Your task to perform on an android device: add a contact in the contacts app Image 0: 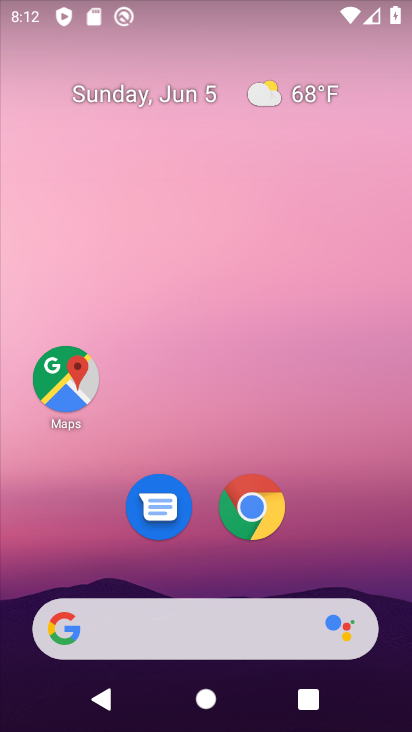
Step 0: drag from (259, 703) to (274, 120)
Your task to perform on an android device: add a contact in the contacts app Image 1: 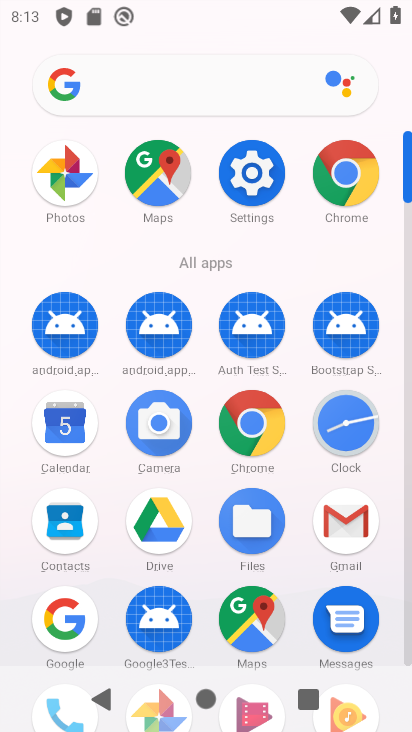
Step 1: click (69, 521)
Your task to perform on an android device: add a contact in the contacts app Image 2: 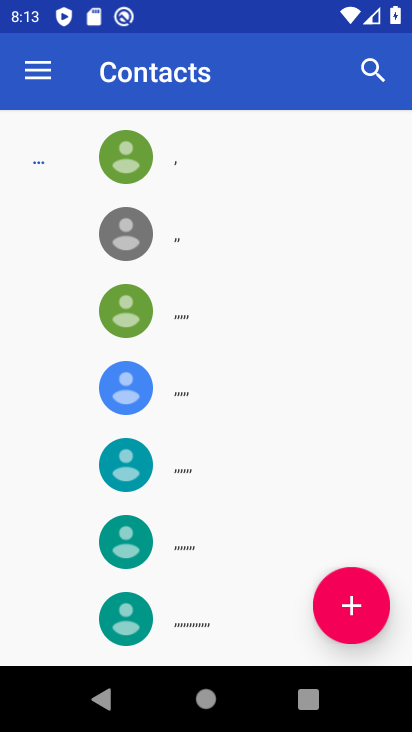
Step 2: click (355, 606)
Your task to perform on an android device: add a contact in the contacts app Image 3: 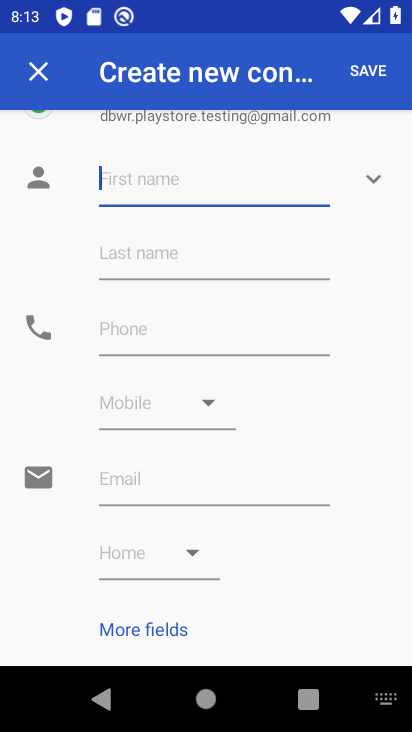
Step 3: type "nnnnnnn"
Your task to perform on an android device: add a contact in the contacts app Image 4: 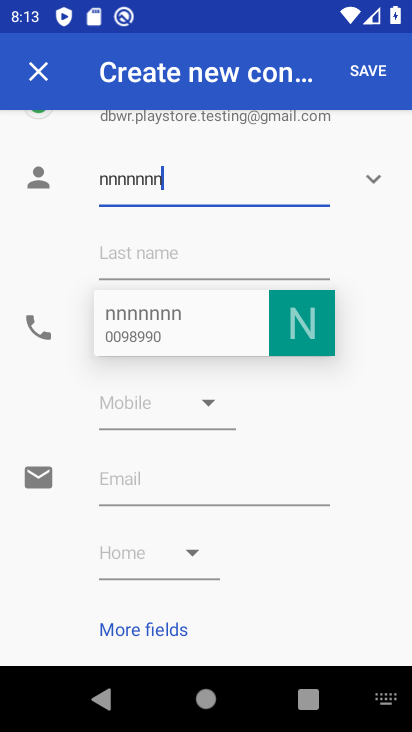
Step 4: click (142, 330)
Your task to perform on an android device: add a contact in the contacts app Image 5: 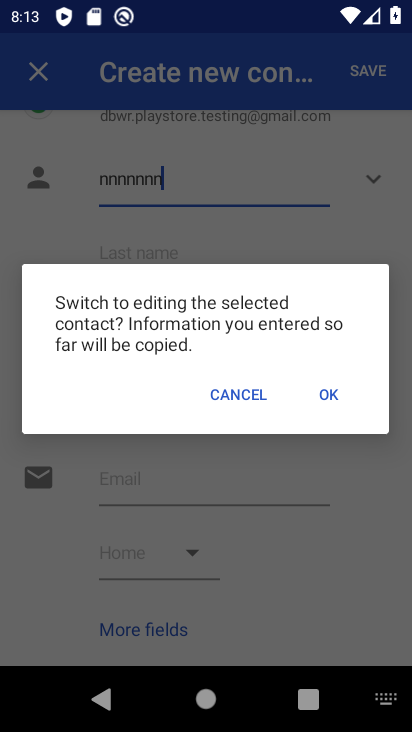
Step 5: click (234, 394)
Your task to perform on an android device: add a contact in the contacts app Image 6: 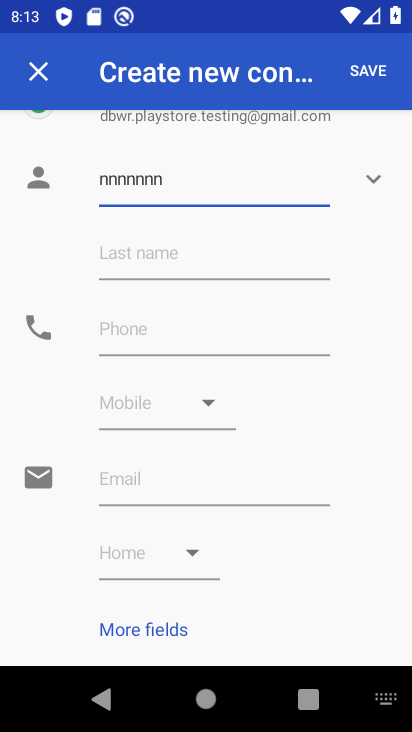
Step 6: type "sss"
Your task to perform on an android device: add a contact in the contacts app Image 7: 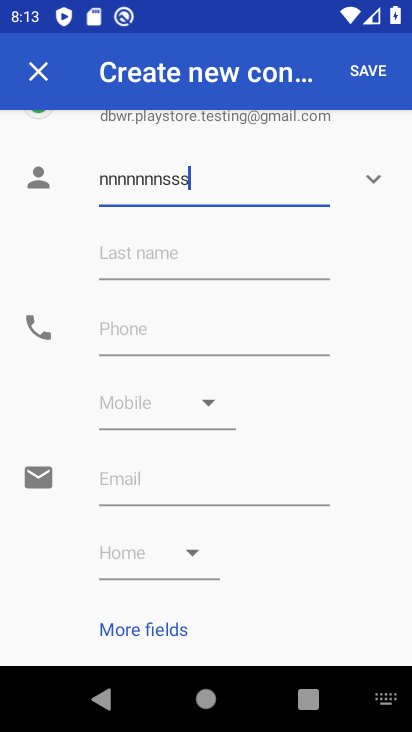
Step 7: click (151, 337)
Your task to perform on an android device: add a contact in the contacts app Image 8: 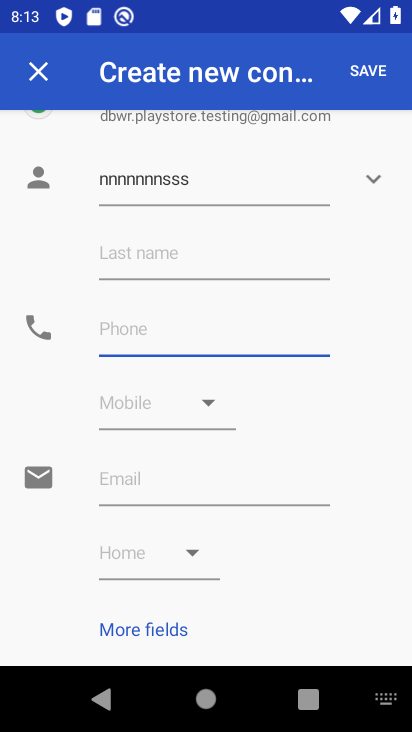
Step 8: type "78765"
Your task to perform on an android device: add a contact in the contacts app Image 9: 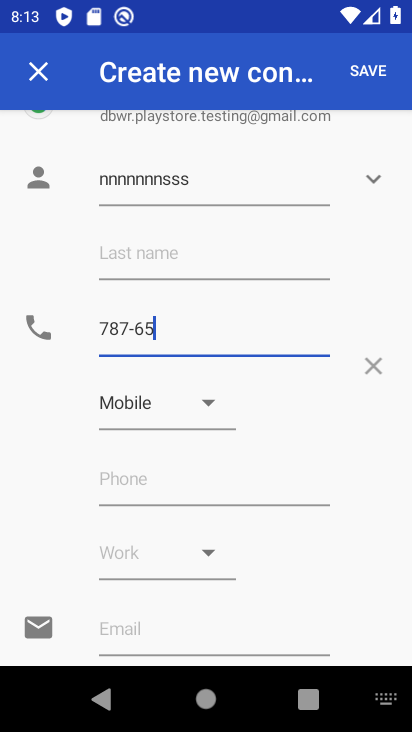
Step 9: click (372, 70)
Your task to perform on an android device: add a contact in the contacts app Image 10: 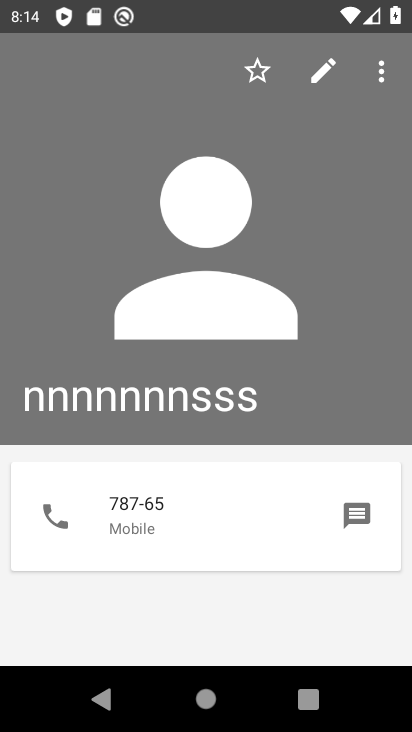
Step 10: task complete